Your task to perform on an android device: set default search engine in the chrome app Image 0: 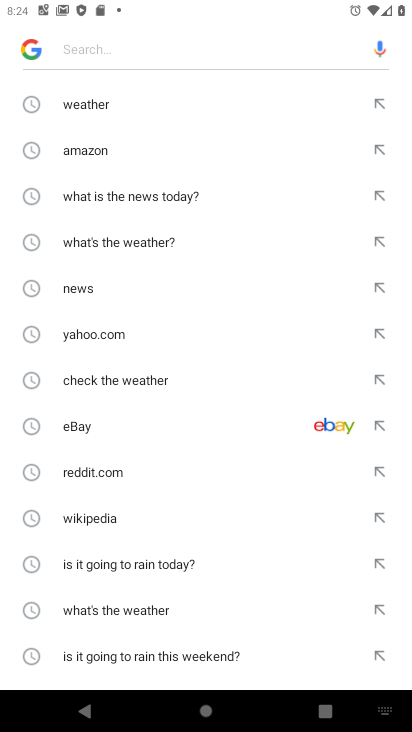
Step 0: press home button
Your task to perform on an android device: set default search engine in the chrome app Image 1: 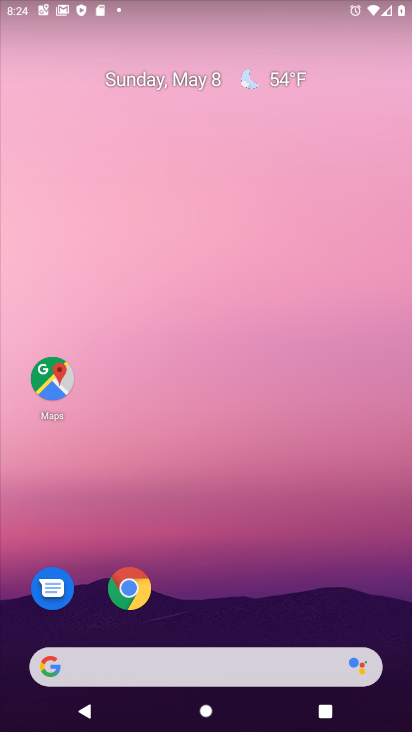
Step 1: click (135, 589)
Your task to perform on an android device: set default search engine in the chrome app Image 2: 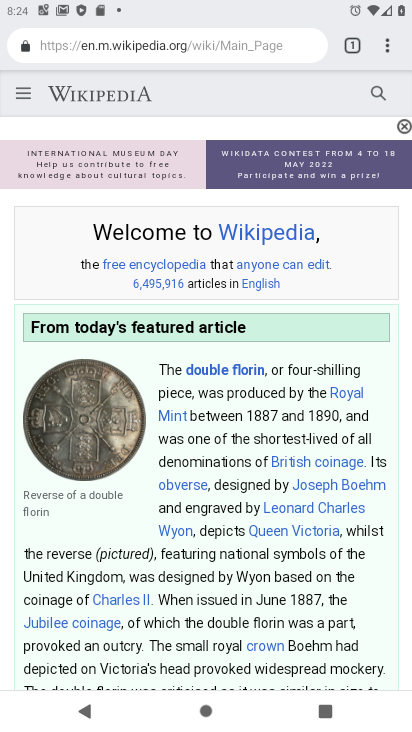
Step 2: click (388, 47)
Your task to perform on an android device: set default search engine in the chrome app Image 3: 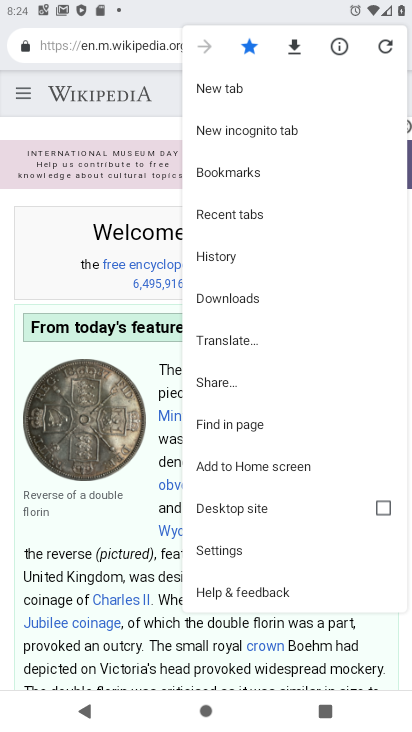
Step 3: click (228, 543)
Your task to perform on an android device: set default search engine in the chrome app Image 4: 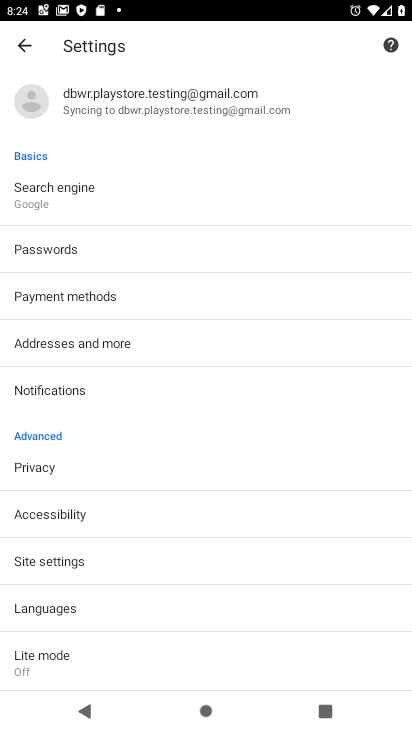
Step 4: click (116, 180)
Your task to perform on an android device: set default search engine in the chrome app Image 5: 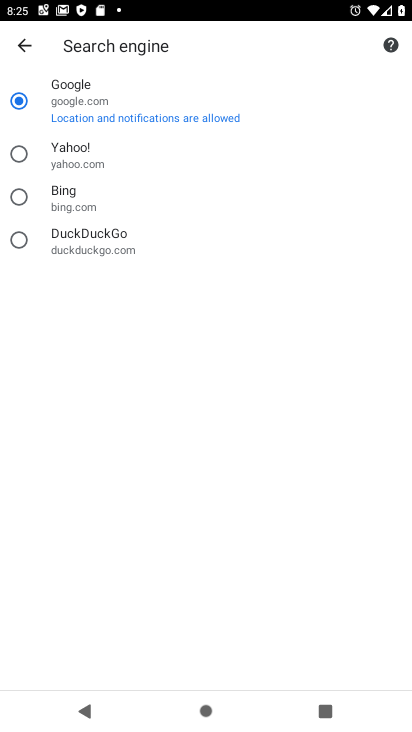
Step 5: click (16, 157)
Your task to perform on an android device: set default search engine in the chrome app Image 6: 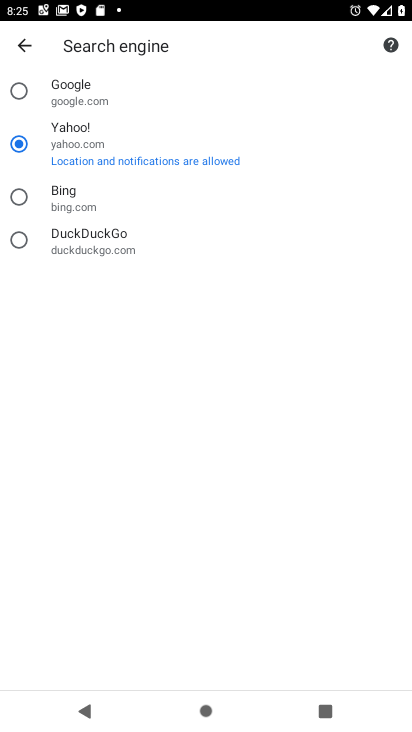
Step 6: task complete